Your task to perform on an android device: turn off wifi Image 0: 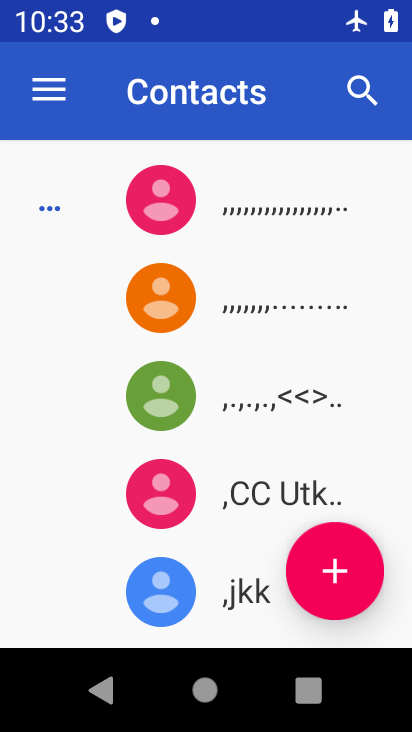
Step 0: press home button
Your task to perform on an android device: turn off wifi Image 1: 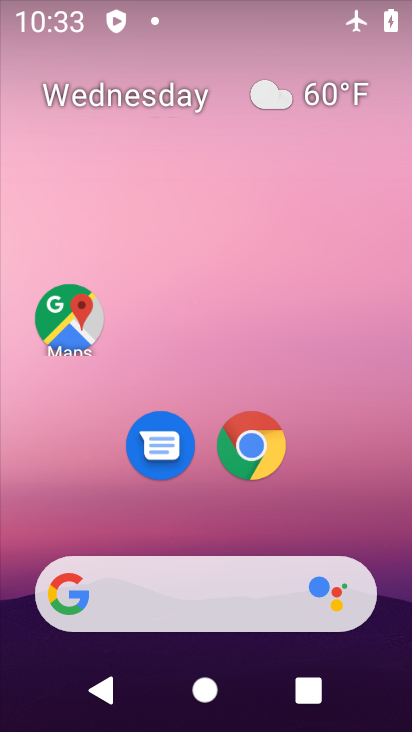
Step 1: drag from (202, 525) to (212, 141)
Your task to perform on an android device: turn off wifi Image 2: 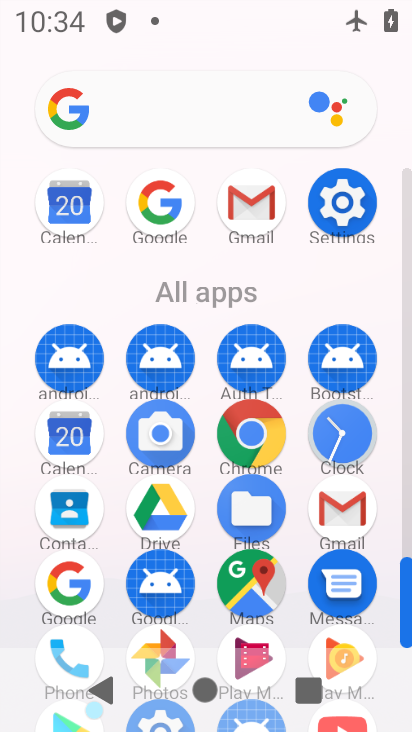
Step 2: click (323, 182)
Your task to perform on an android device: turn off wifi Image 3: 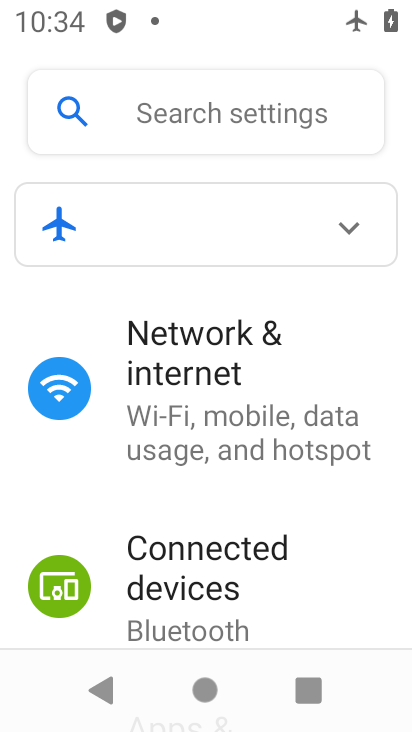
Step 3: click (190, 388)
Your task to perform on an android device: turn off wifi Image 4: 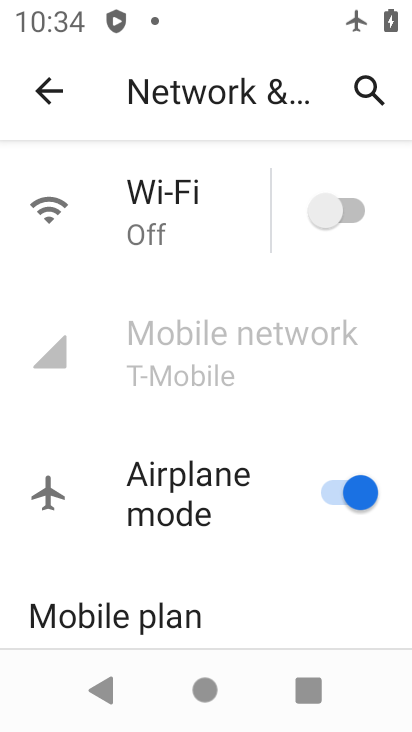
Step 4: task complete